Your task to perform on an android device: Go to ESPN.com Image 0: 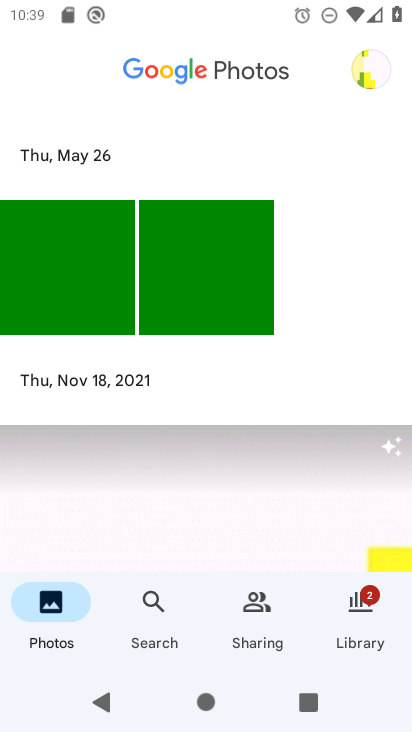
Step 0: press back button
Your task to perform on an android device: Go to ESPN.com Image 1: 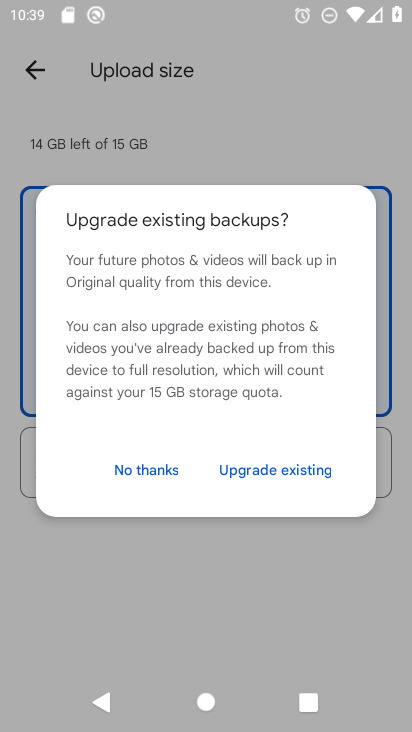
Step 1: press home button
Your task to perform on an android device: Go to ESPN.com Image 2: 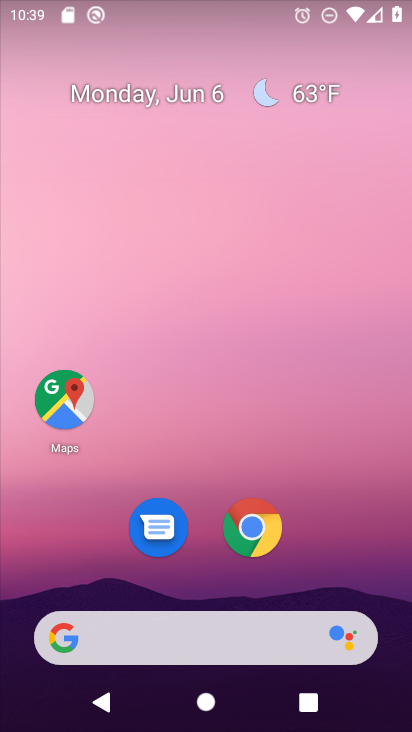
Step 2: drag from (366, 562) to (360, 176)
Your task to perform on an android device: Go to ESPN.com Image 3: 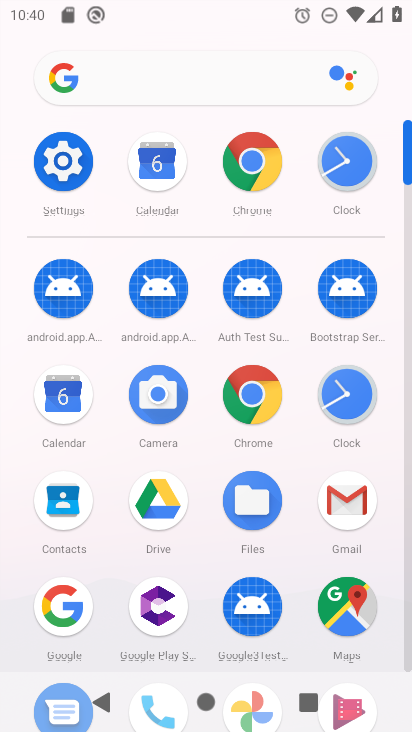
Step 3: click (277, 412)
Your task to perform on an android device: Go to ESPN.com Image 4: 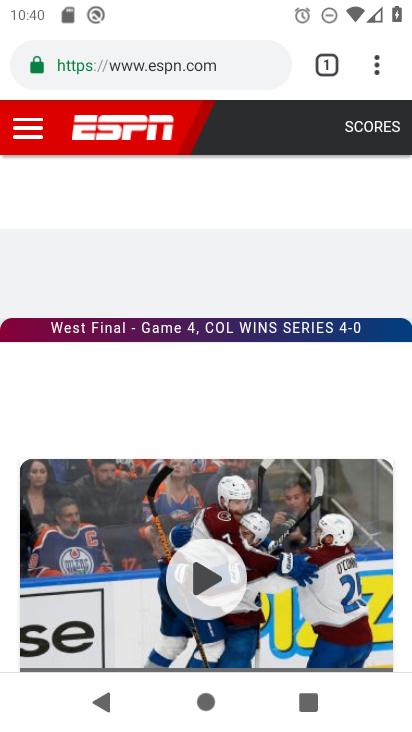
Step 4: task complete